Your task to perform on an android device: toggle show notifications on the lock screen Image 0: 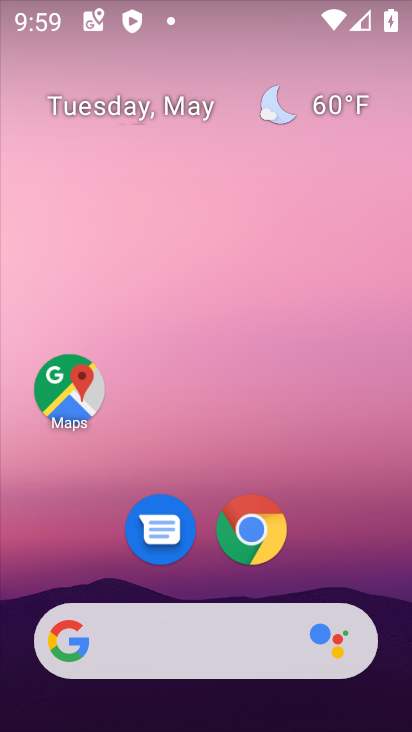
Step 0: drag from (216, 602) to (245, 157)
Your task to perform on an android device: toggle show notifications on the lock screen Image 1: 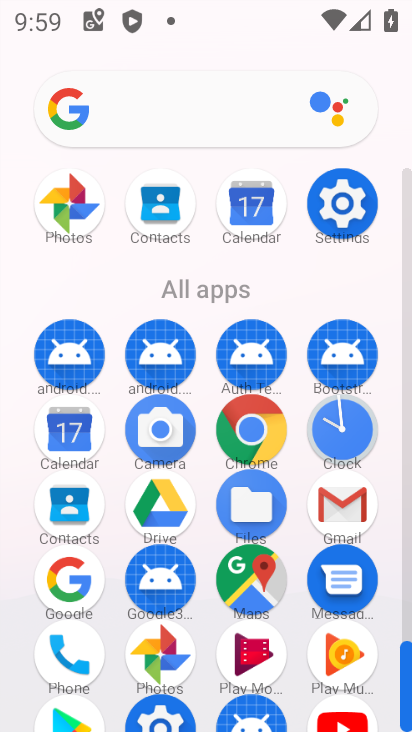
Step 1: click (340, 216)
Your task to perform on an android device: toggle show notifications on the lock screen Image 2: 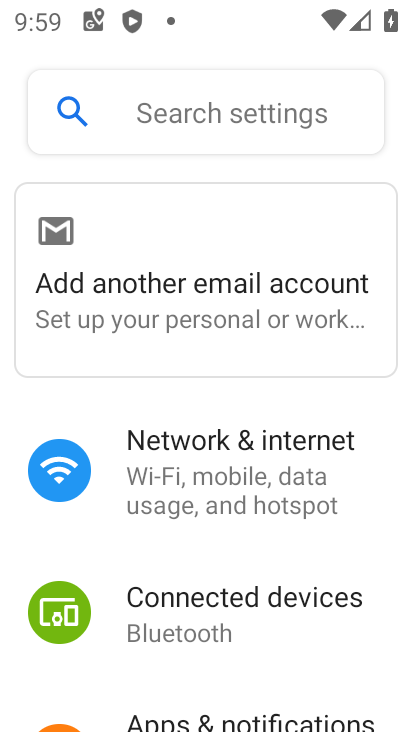
Step 2: drag from (231, 693) to (252, 323)
Your task to perform on an android device: toggle show notifications on the lock screen Image 3: 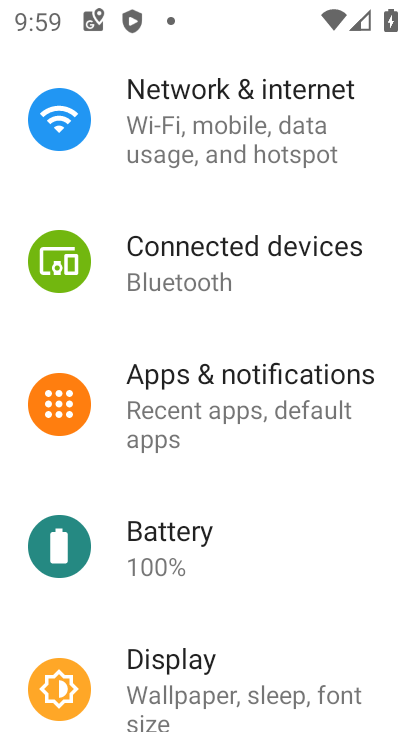
Step 3: drag from (190, 707) to (274, 342)
Your task to perform on an android device: toggle show notifications on the lock screen Image 4: 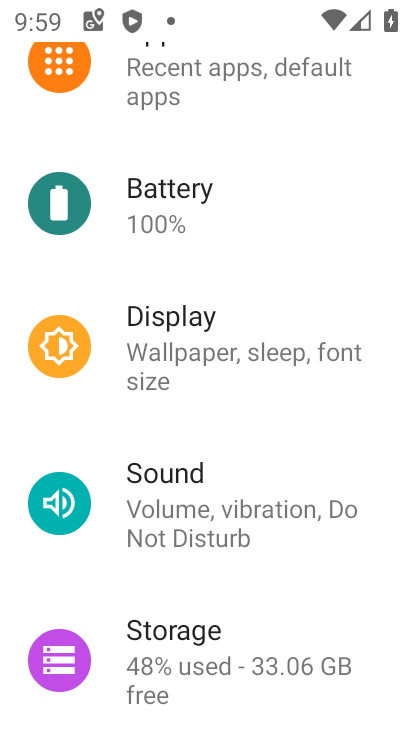
Step 4: drag from (222, 616) to (278, 296)
Your task to perform on an android device: toggle show notifications on the lock screen Image 5: 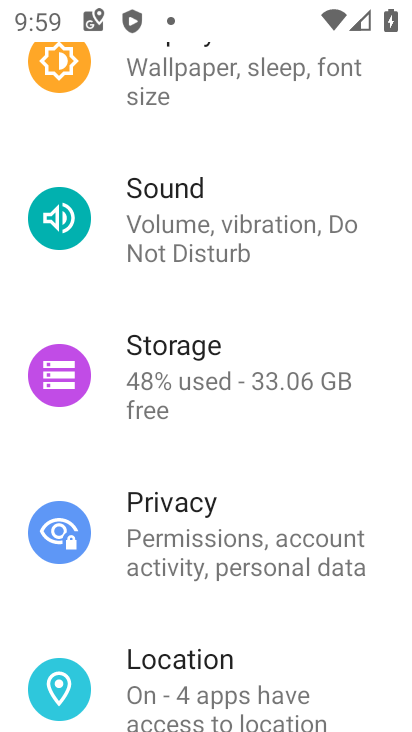
Step 5: click (212, 538)
Your task to perform on an android device: toggle show notifications on the lock screen Image 6: 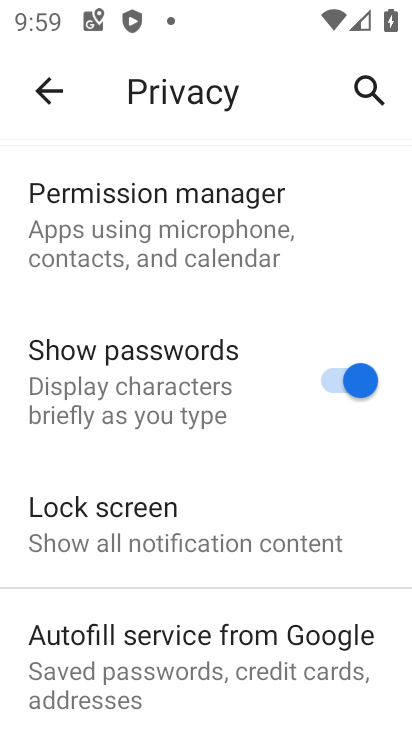
Step 6: drag from (176, 698) to (218, 377)
Your task to perform on an android device: toggle show notifications on the lock screen Image 7: 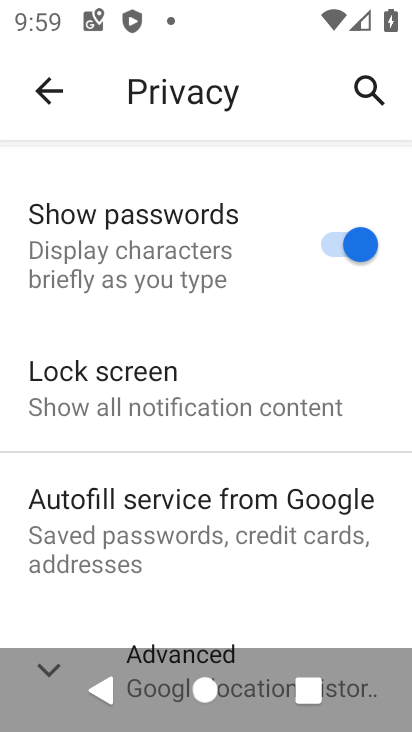
Step 7: click (137, 393)
Your task to perform on an android device: toggle show notifications on the lock screen Image 8: 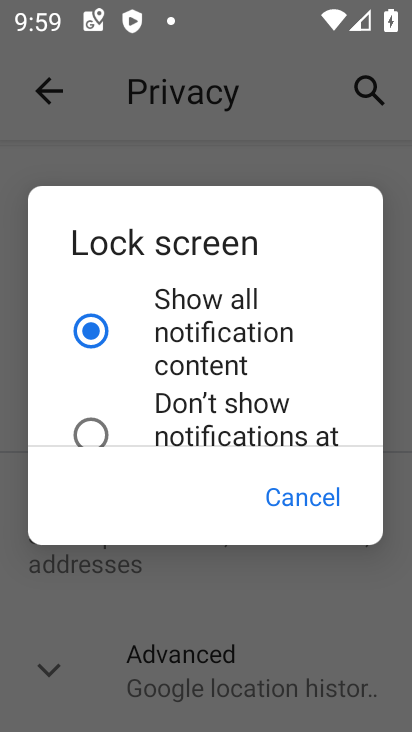
Step 8: click (84, 419)
Your task to perform on an android device: toggle show notifications on the lock screen Image 9: 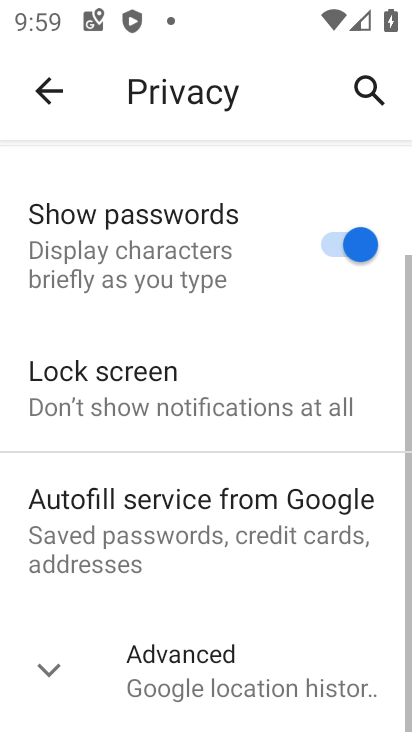
Step 9: task complete